Your task to perform on an android device: Open Google Chrome Image 0: 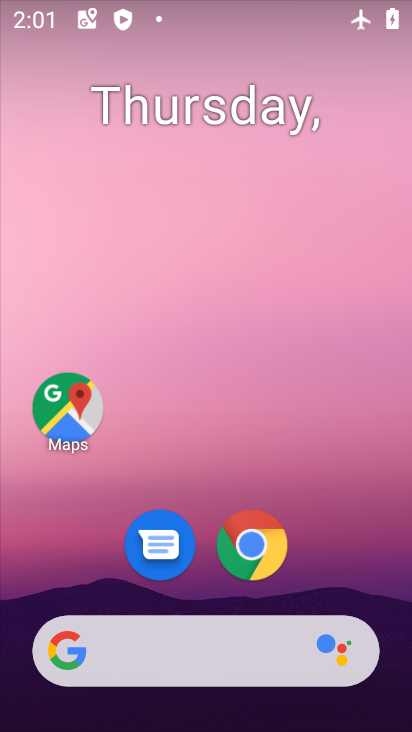
Step 0: drag from (194, 621) to (297, 53)
Your task to perform on an android device: Open Google Chrome Image 1: 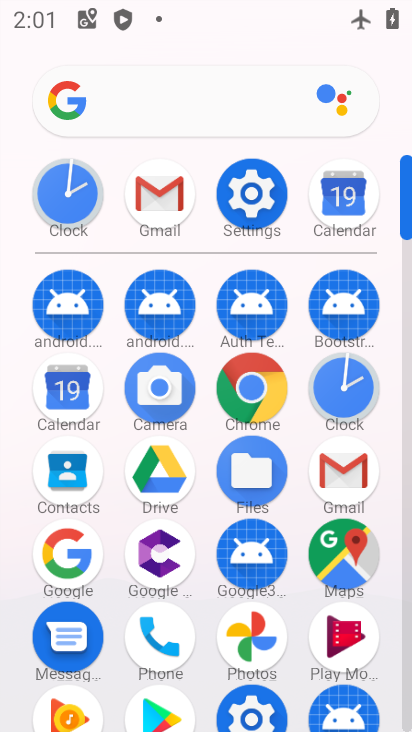
Step 1: click (248, 370)
Your task to perform on an android device: Open Google Chrome Image 2: 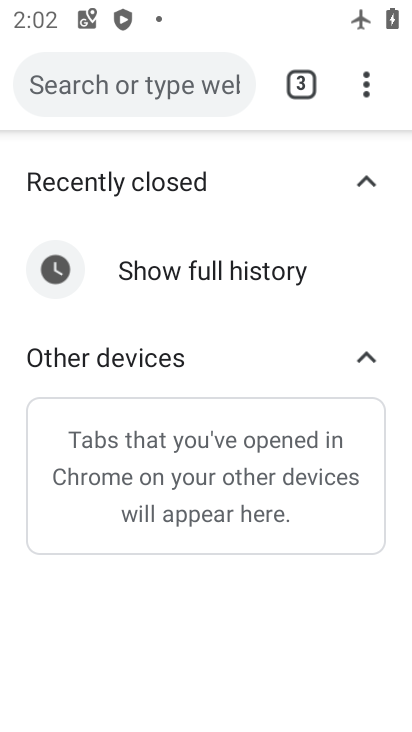
Step 2: task complete